Your task to perform on an android device: Open the phone app and click the voicemail tab. Image 0: 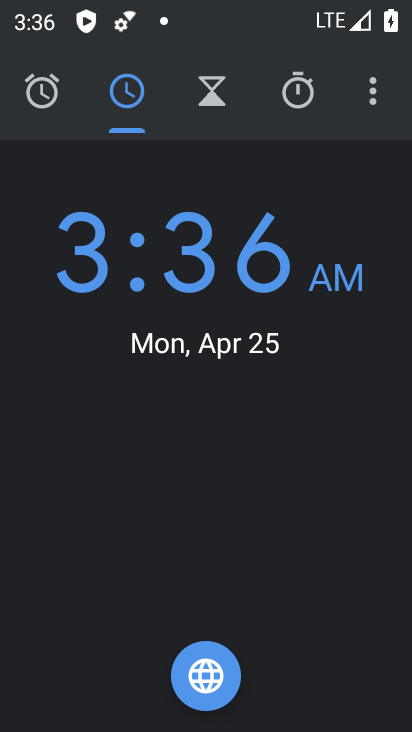
Step 0: press home button
Your task to perform on an android device: Open the phone app and click the voicemail tab. Image 1: 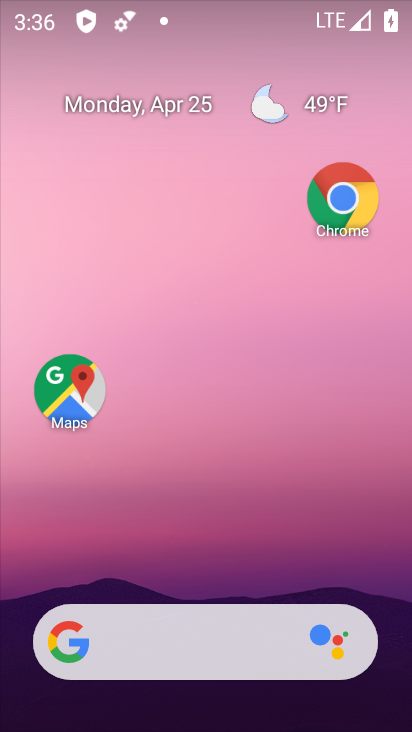
Step 1: drag from (184, 645) to (364, 23)
Your task to perform on an android device: Open the phone app and click the voicemail tab. Image 2: 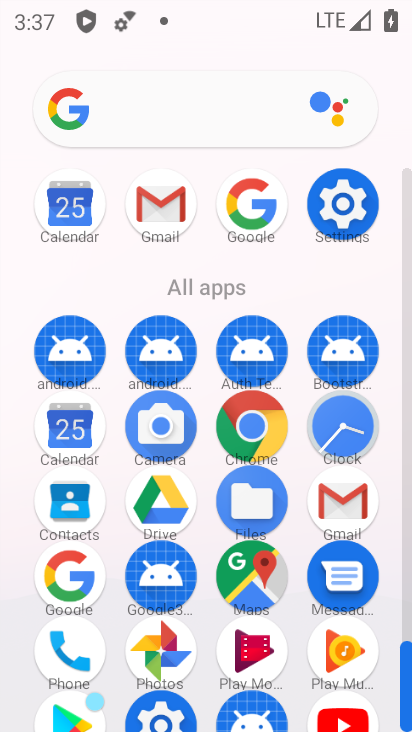
Step 2: drag from (115, 614) to (271, 263)
Your task to perform on an android device: Open the phone app and click the voicemail tab. Image 3: 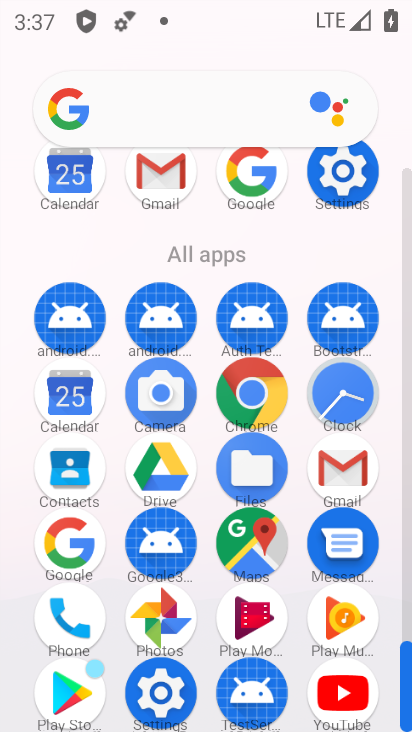
Step 3: click (61, 615)
Your task to perform on an android device: Open the phone app and click the voicemail tab. Image 4: 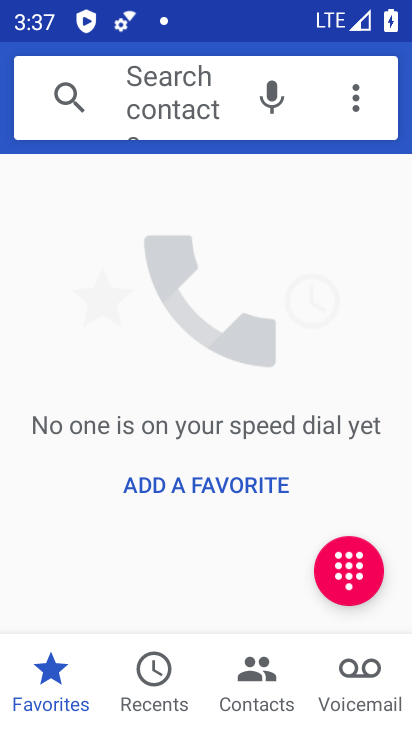
Step 4: click (357, 682)
Your task to perform on an android device: Open the phone app and click the voicemail tab. Image 5: 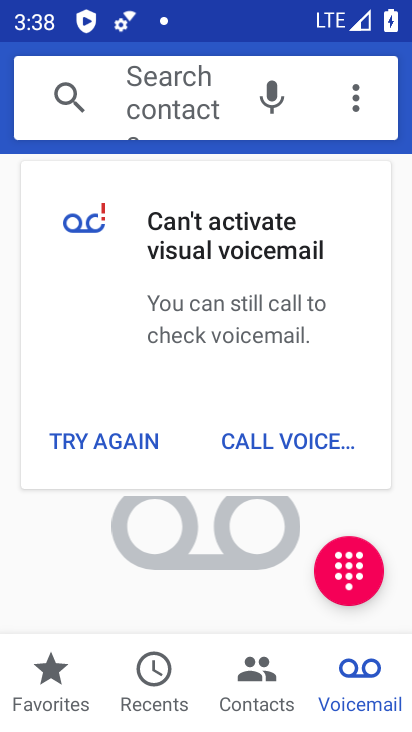
Step 5: task complete